Your task to perform on an android device: open app "Firefox Browser" Image 0: 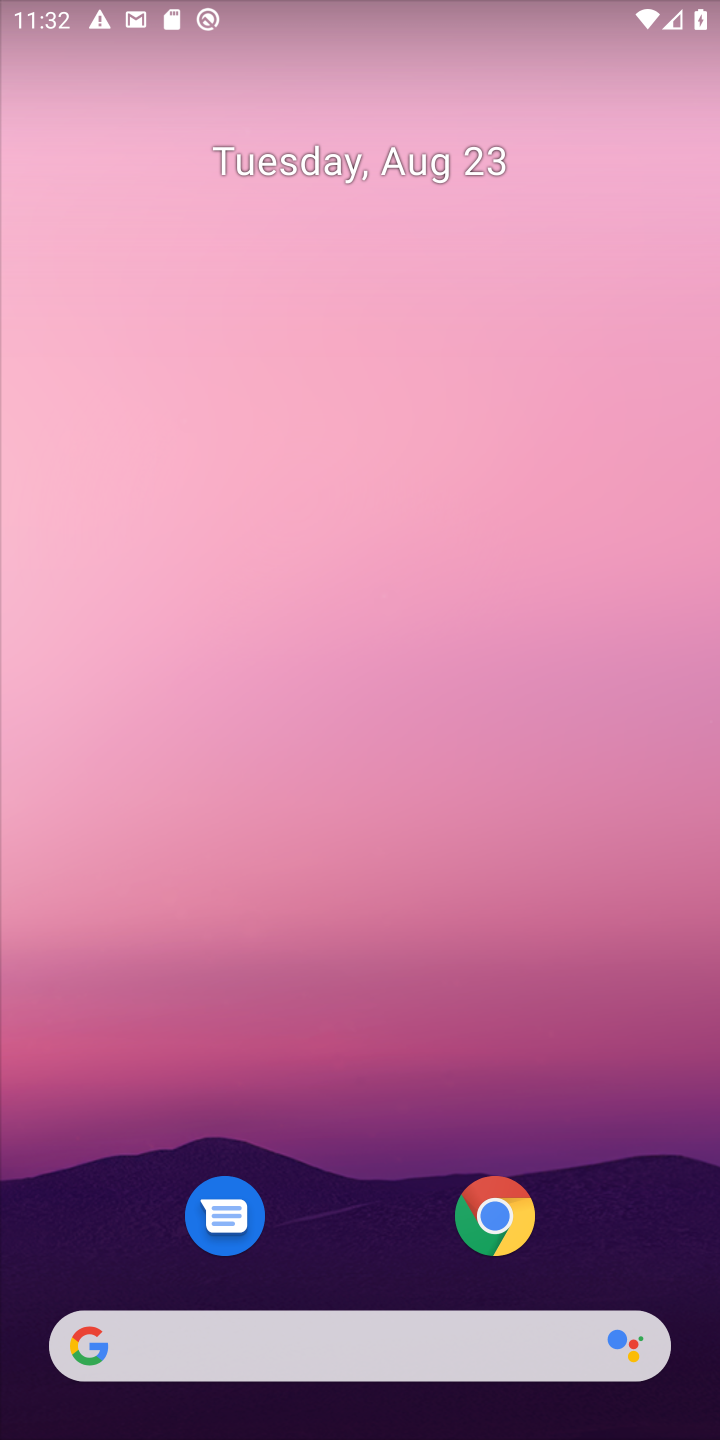
Step 0: drag from (226, 1340) to (257, 113)
Your task to perform on an android device: open app "Firefox Browser" Image 1: 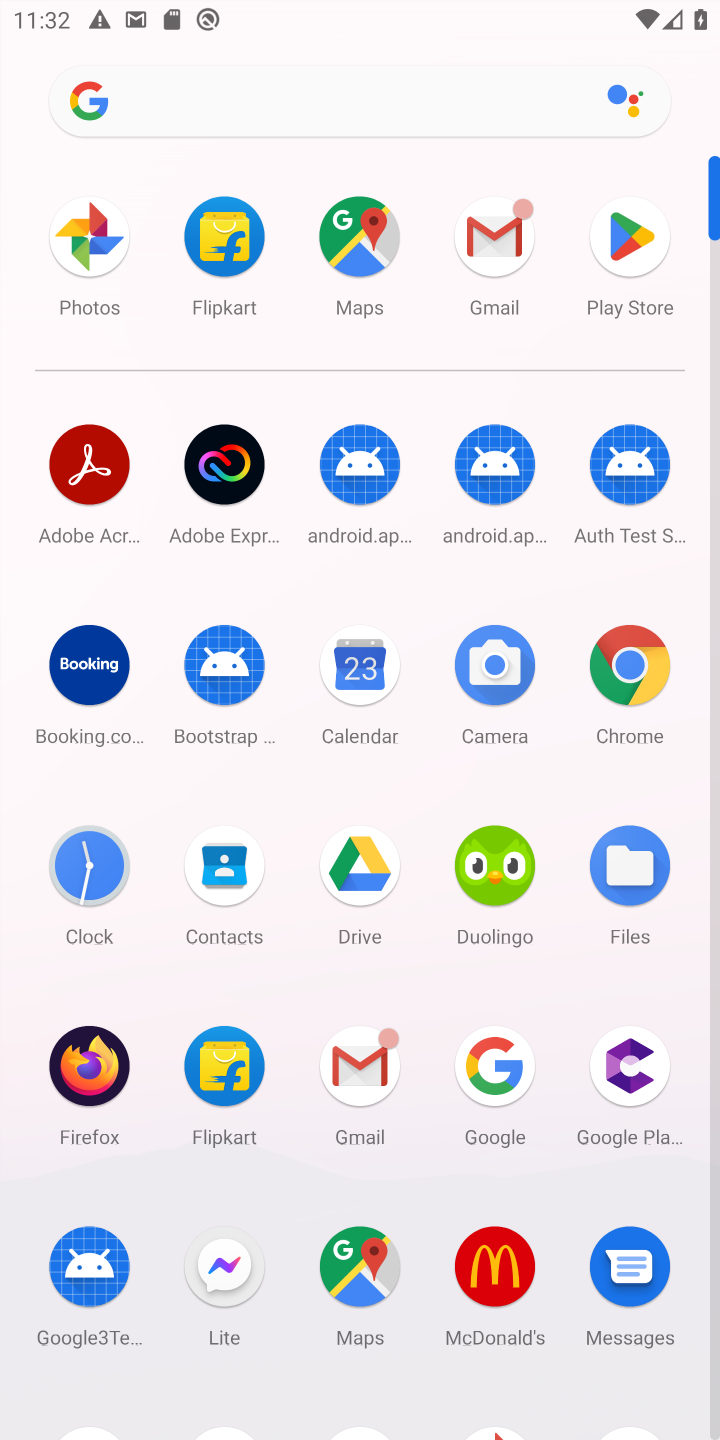
Step 1: click (646, 241)
Your task to perform on an android device: open app "Firefox Browser" Image 2: 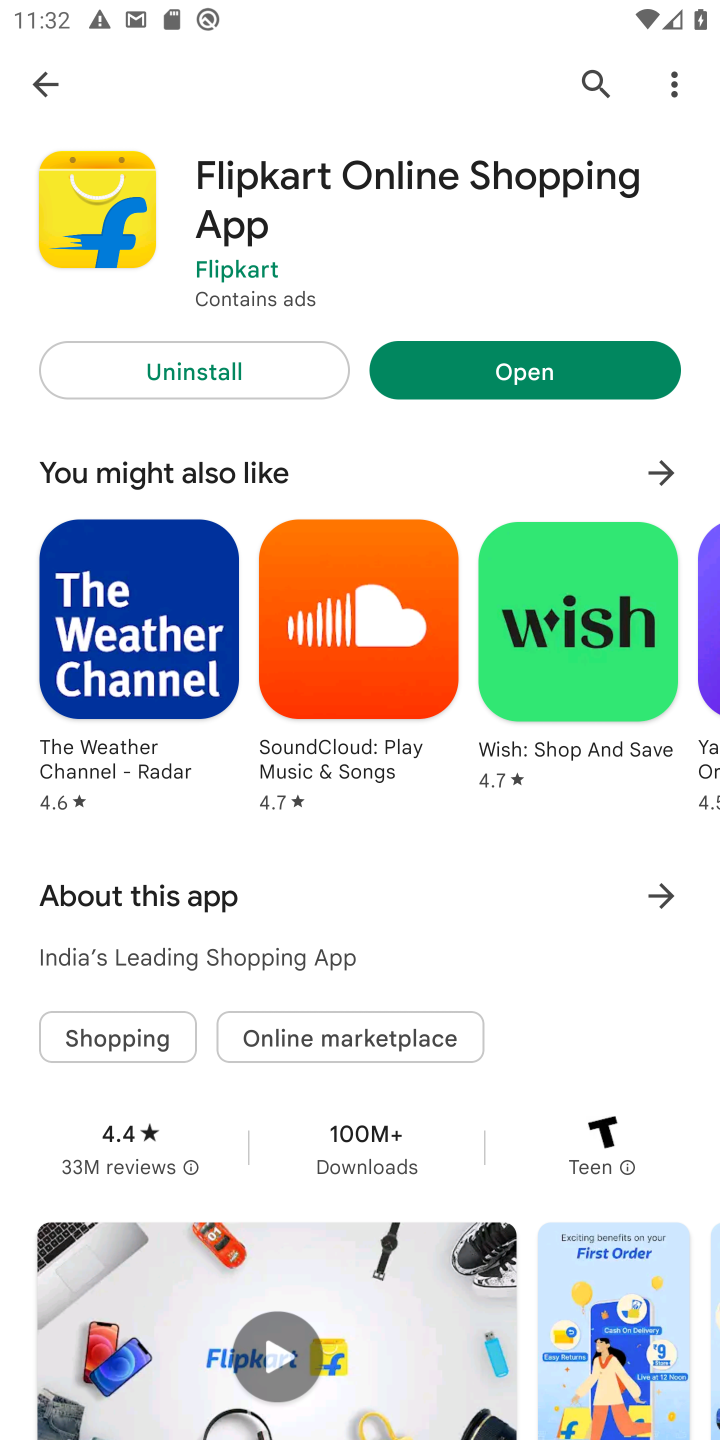
Step 2: press back button
Your task to perform on an android device: open app "Firefox Browser" Image 3: 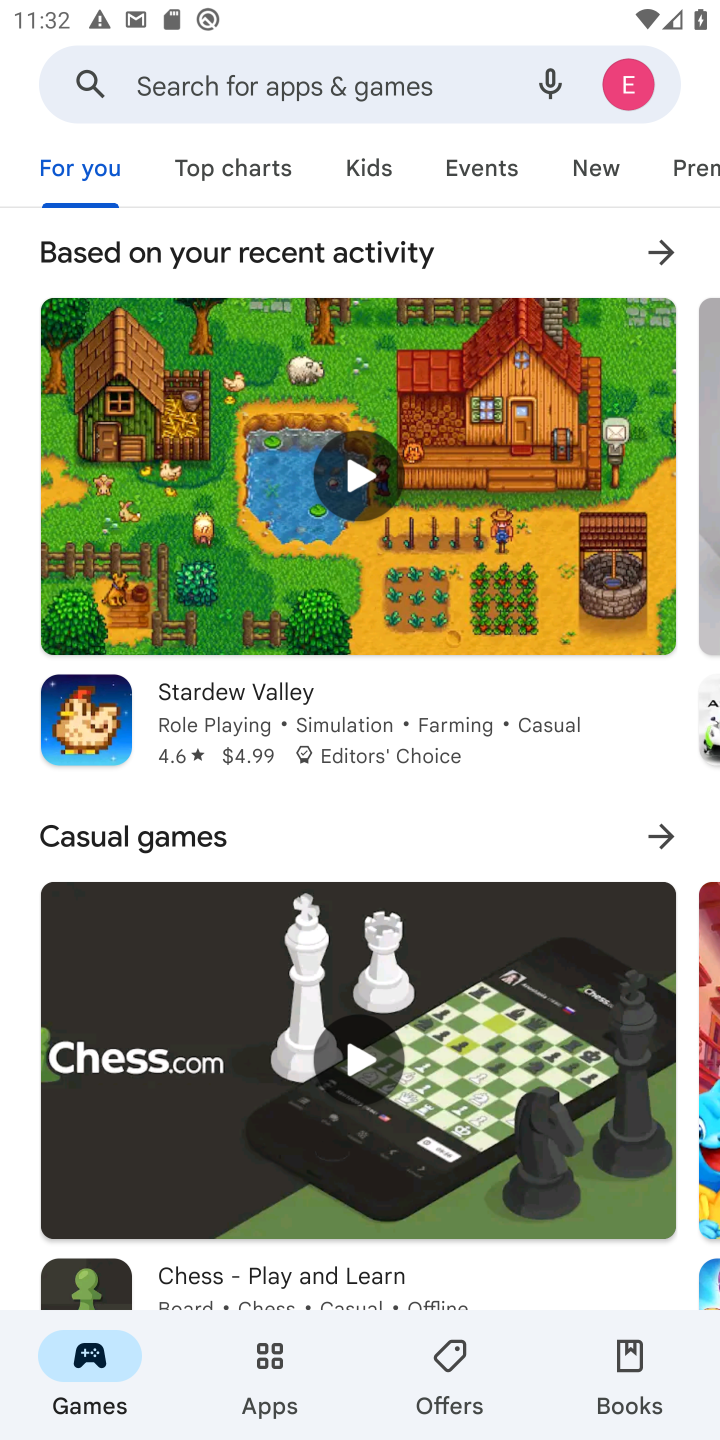
Step 3: click (280, 89)
Your task to perform on an android device: open app "Firefox Browser" Image 4: 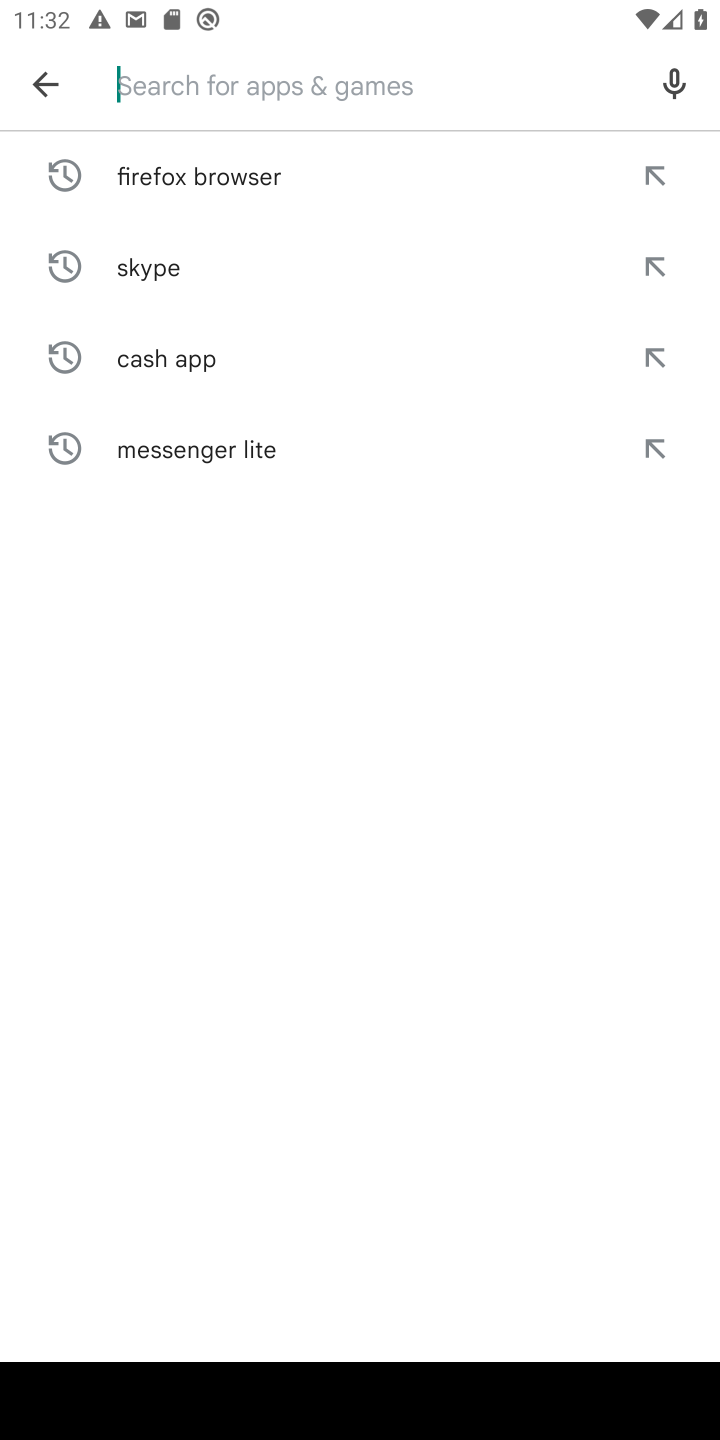
Step 4: click (244, 174)
Your task to perform on an android device: open app "Firefox Browser" Image 5: 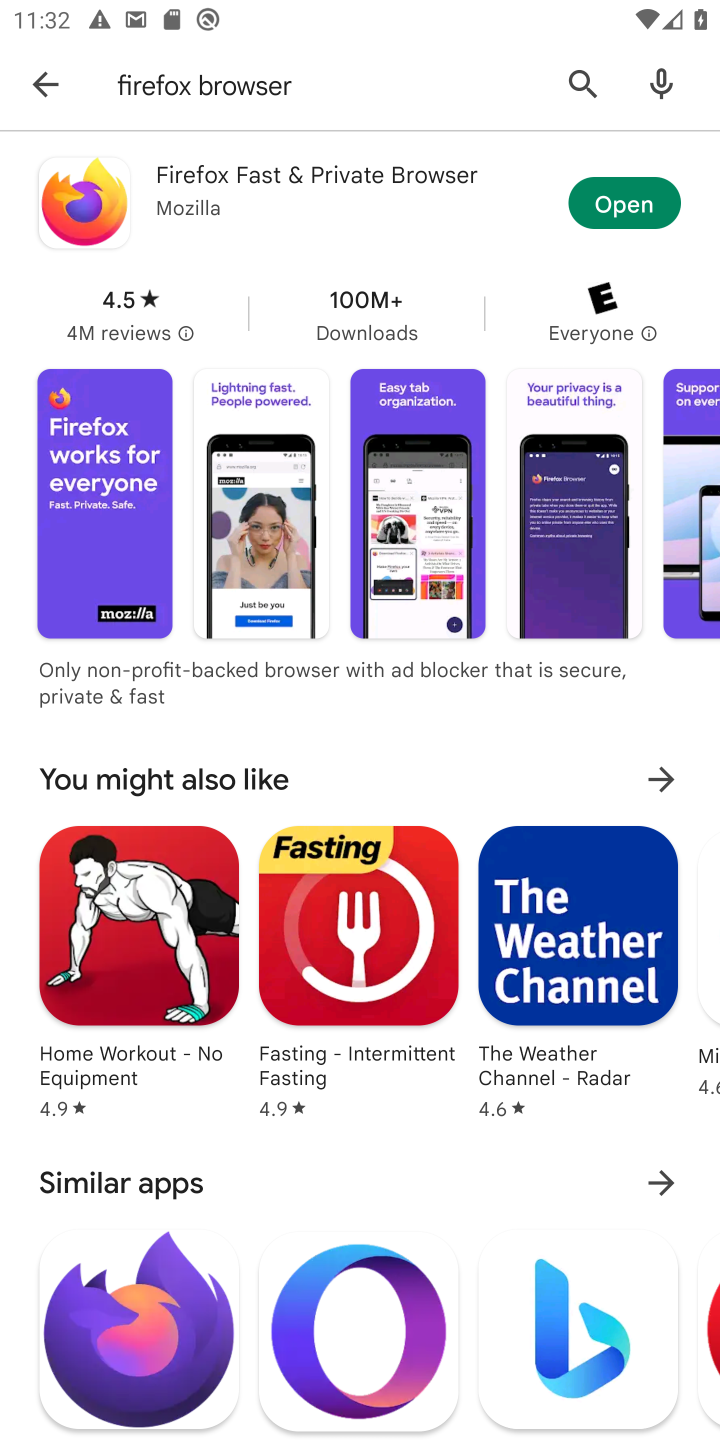
Step 5: click (632, 201)
Your task to perform on an android device: open app "Firefox Browser" Image 6: 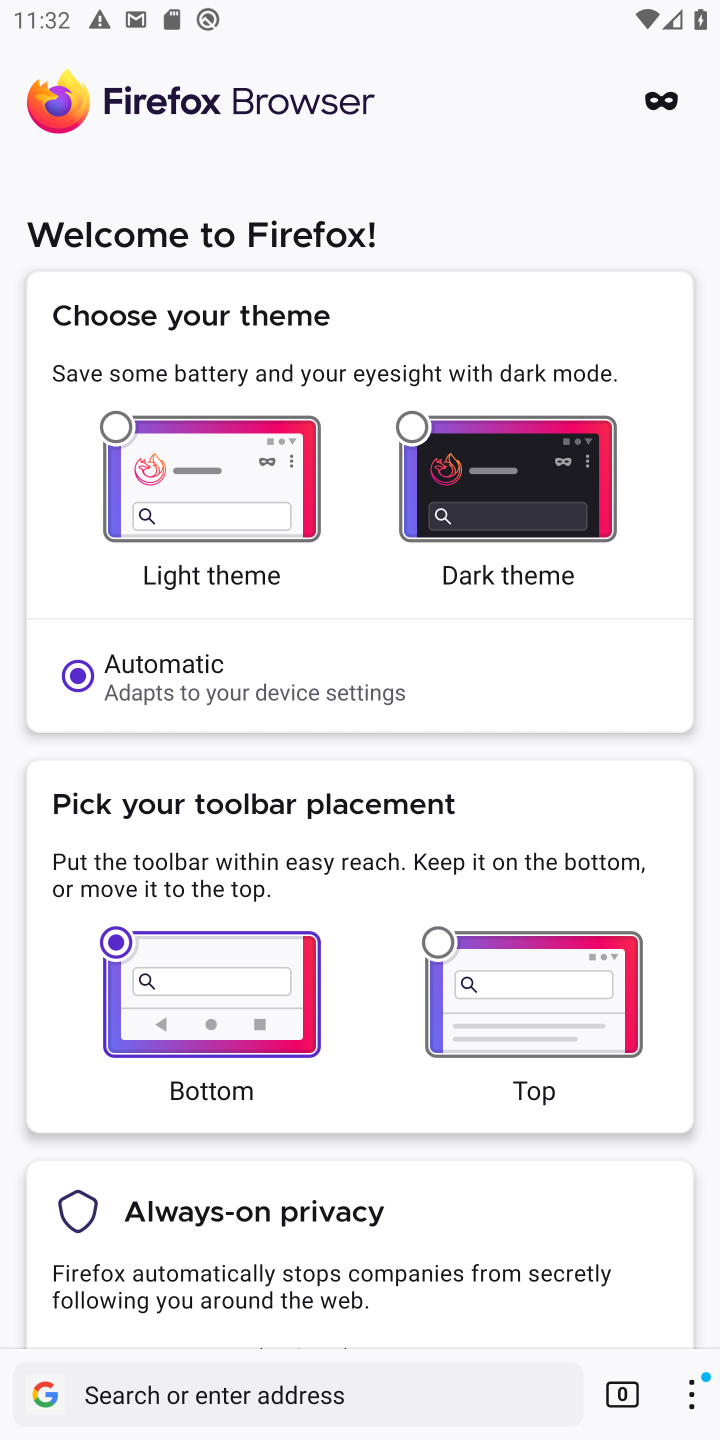
Step 6: task complete